Your task to perform on an android device: Do I have any events today? Image 0: 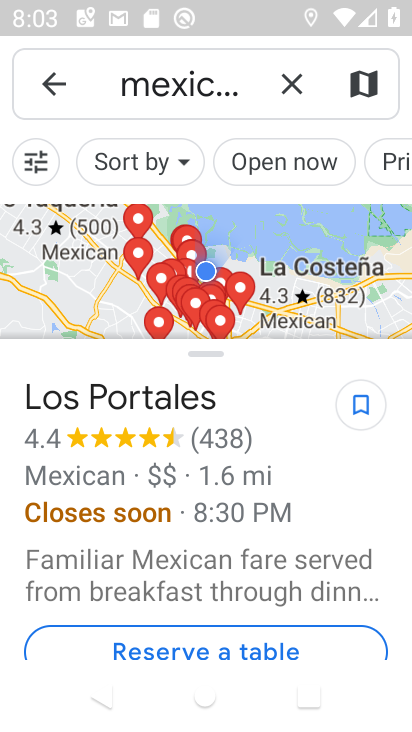
Step 0: press home button
Your task to perform on an android device: Do I have any events today? Image 1: 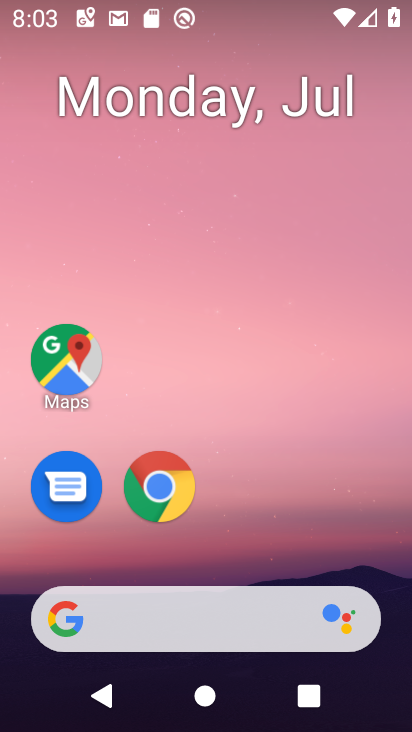
Step 1: drag from (315, 557) to (333, 120)
Your task to perform on an android device: Do I have any events today? Image 2: 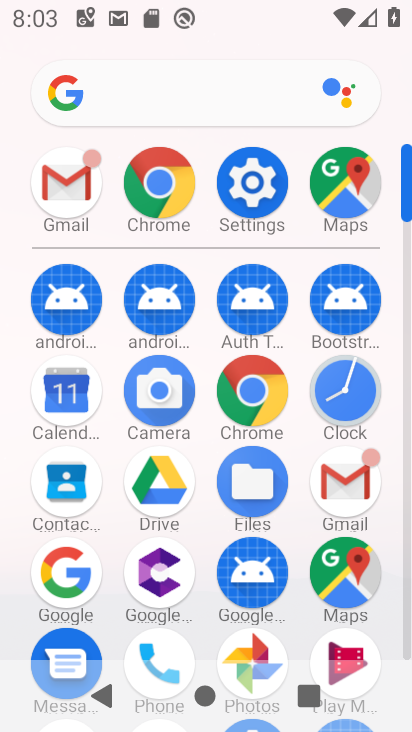
Step 2: click (63, 403)
Your task to perform on an android device: Do I have any events today? Image 3: 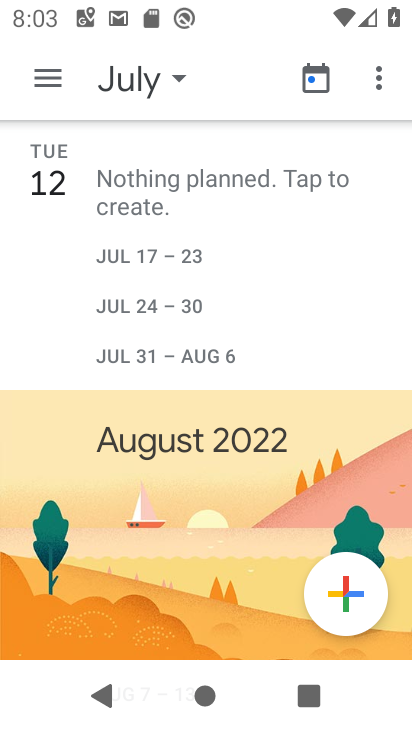
Step 3: task complete